Your task to perform on an android device: Go to Yahoo.com Image 0: 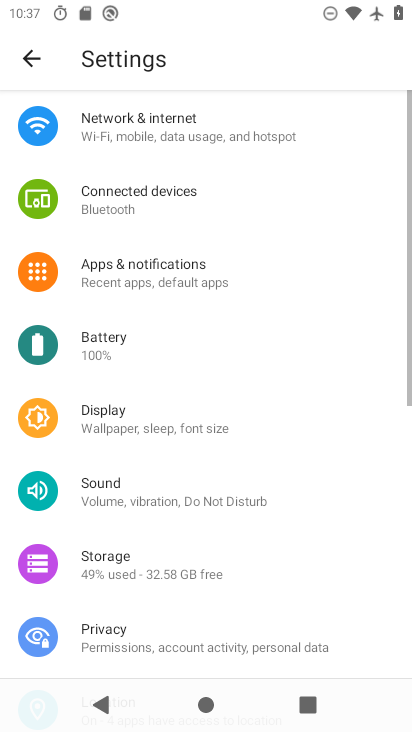
Step 0: press home button
Your task to perform on an android device: Go to Yahoo.com Image 1: 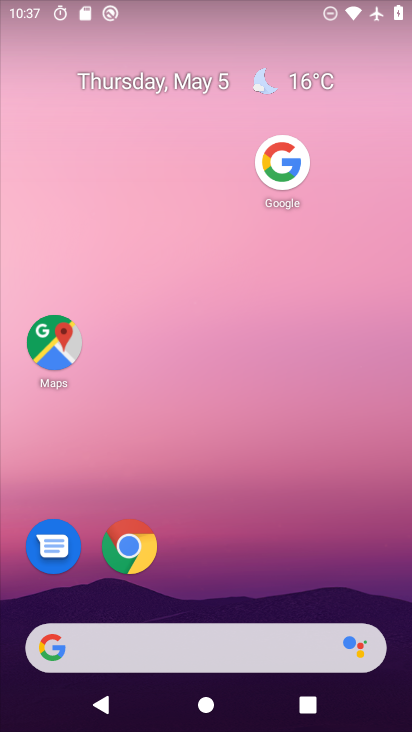
Step 1: drag from (200, 658) to (328, 57)
Your task to perform on an android device: Go to Yahoo.com Image 2: 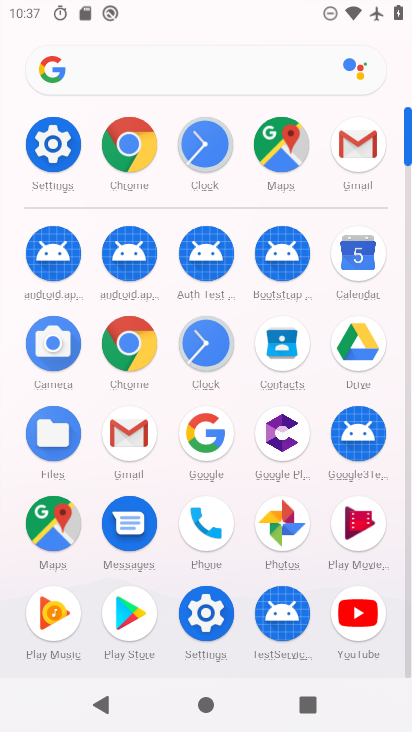
Step 2: click (126, 156)
Your task to perform on an android device: Go to Yahoo.com Image 3: 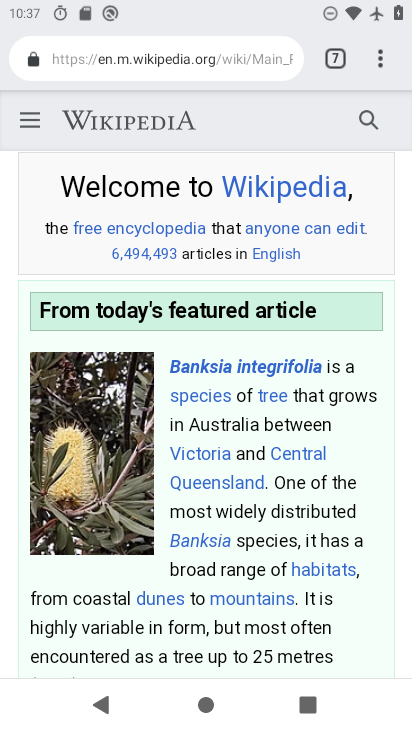
Step 3: drag from (380, 59) to (247, 115)
Your task to perform on an android device: Go to Yahoo.com Image 4: 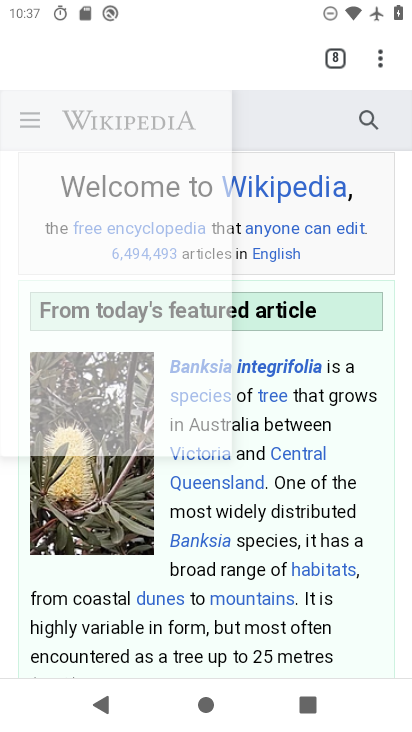
Step 4: click (247, 115)
Your task to perform on an android device: Go to Yahoo.com Image 5: 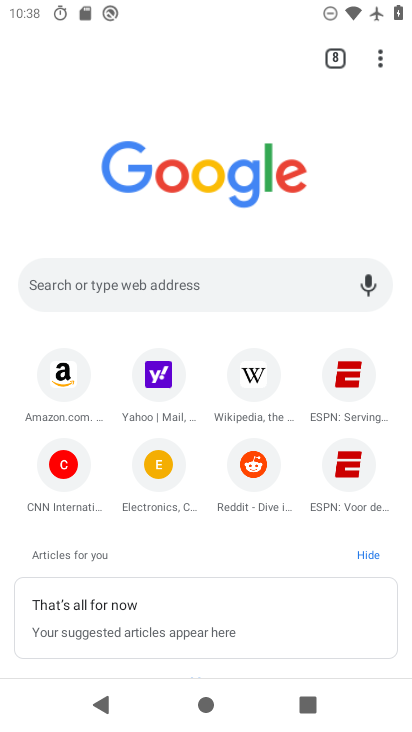
Step 5: click (149, 401)
Your task to perform on an android device: Go to Yahoo.com Image 6: 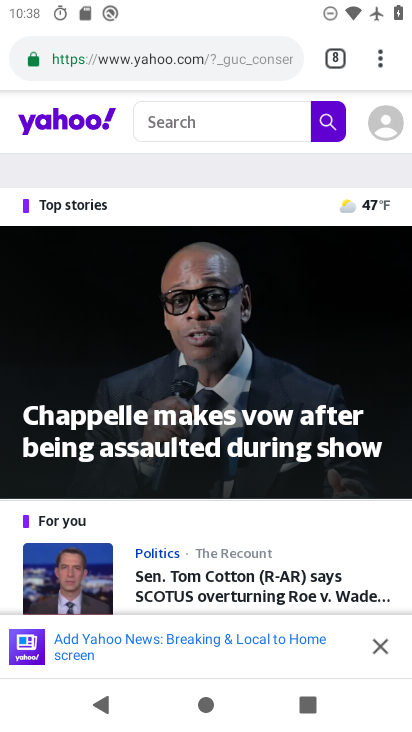
Step 6: task complete